Your task to perform on an android device: Clear all items from cart on amazon.com. Add corsair k70 to the cart on amazon.com, then select checkout. Image 0: 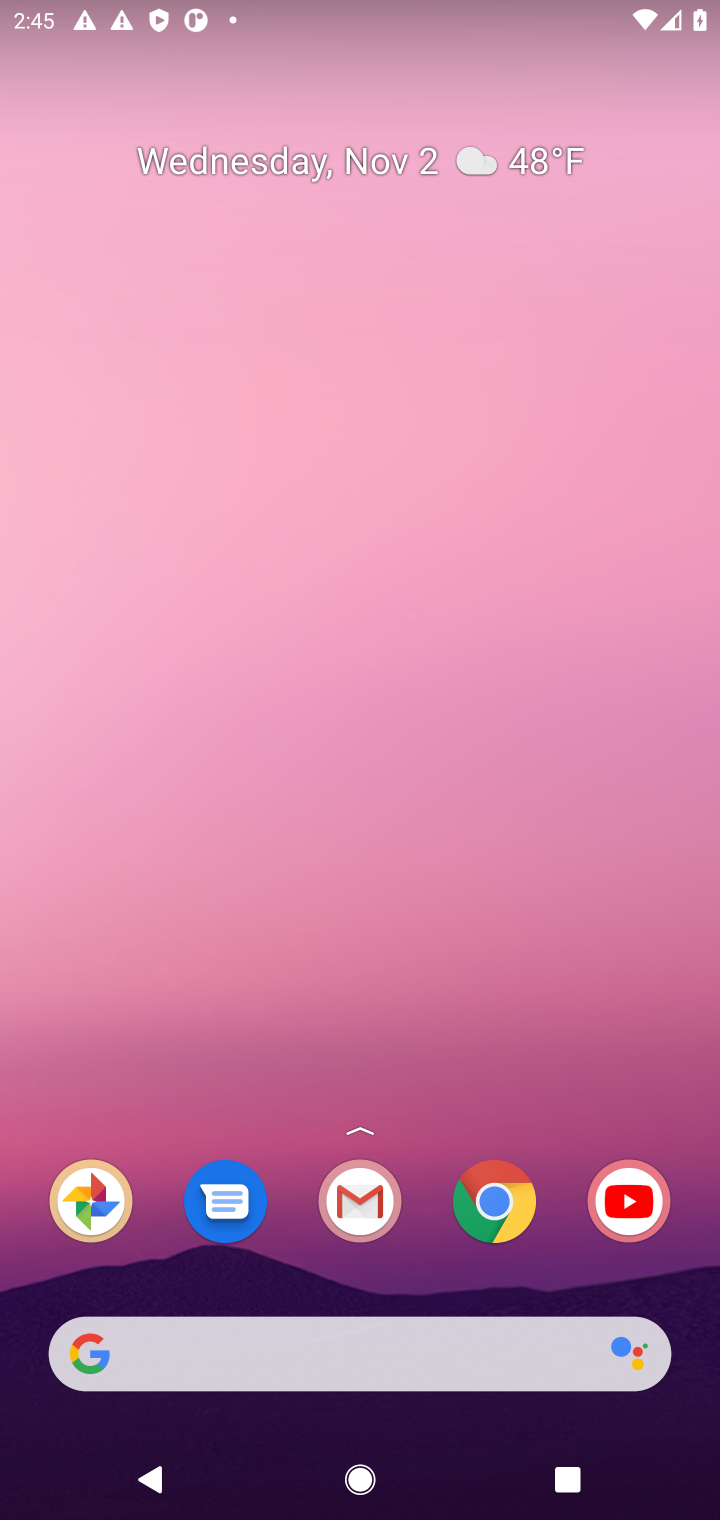
Step 0: click (497, 1222)
Your task to perform on an android device: Clear all items from cart on amazon.com. Add corsair k70 to the cart on amazon.com, then select checkout. Image 1: 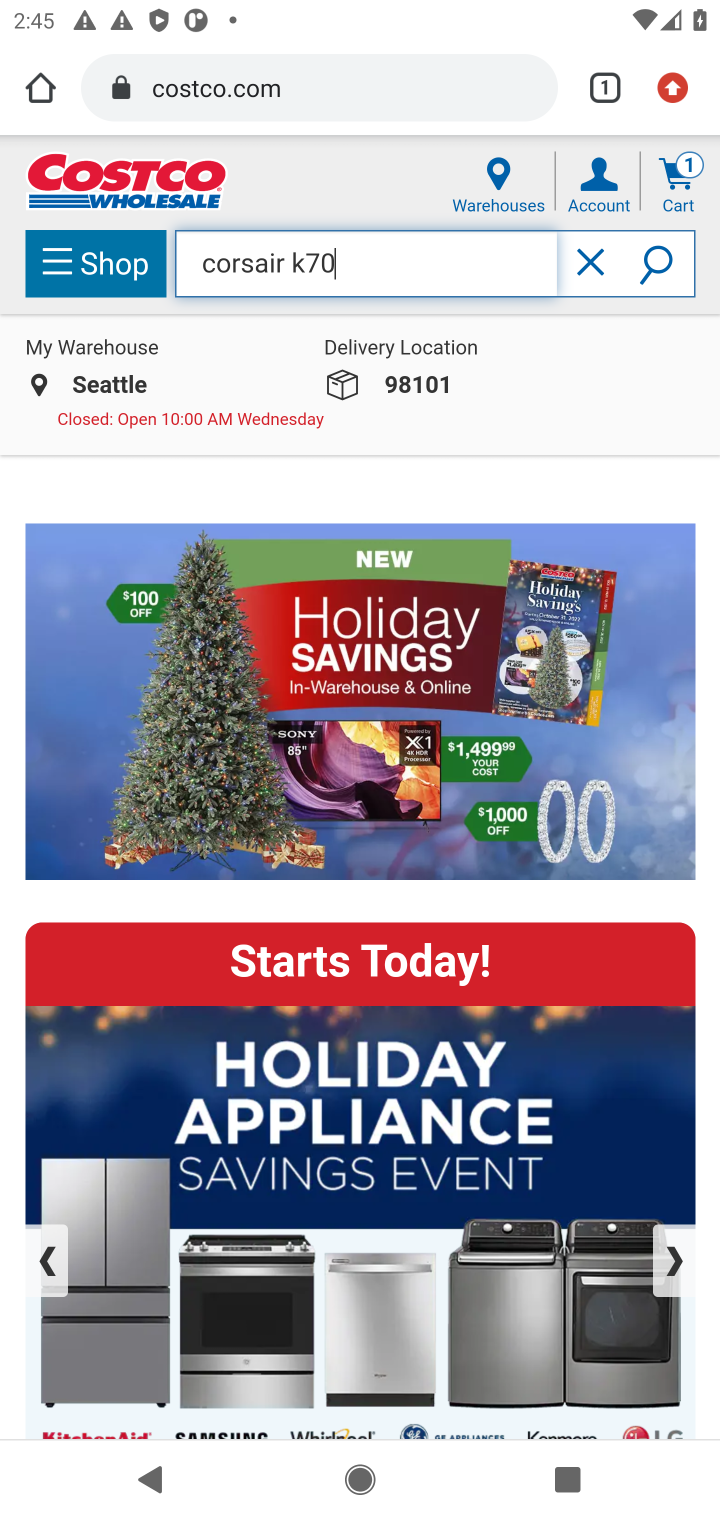
Step 1: click (283, 72)
Your task to perform on an android device: Clear all items from cart on amazon.com. Add corsair k70 to the cart on amazon.com, then select checkout. Image 2: 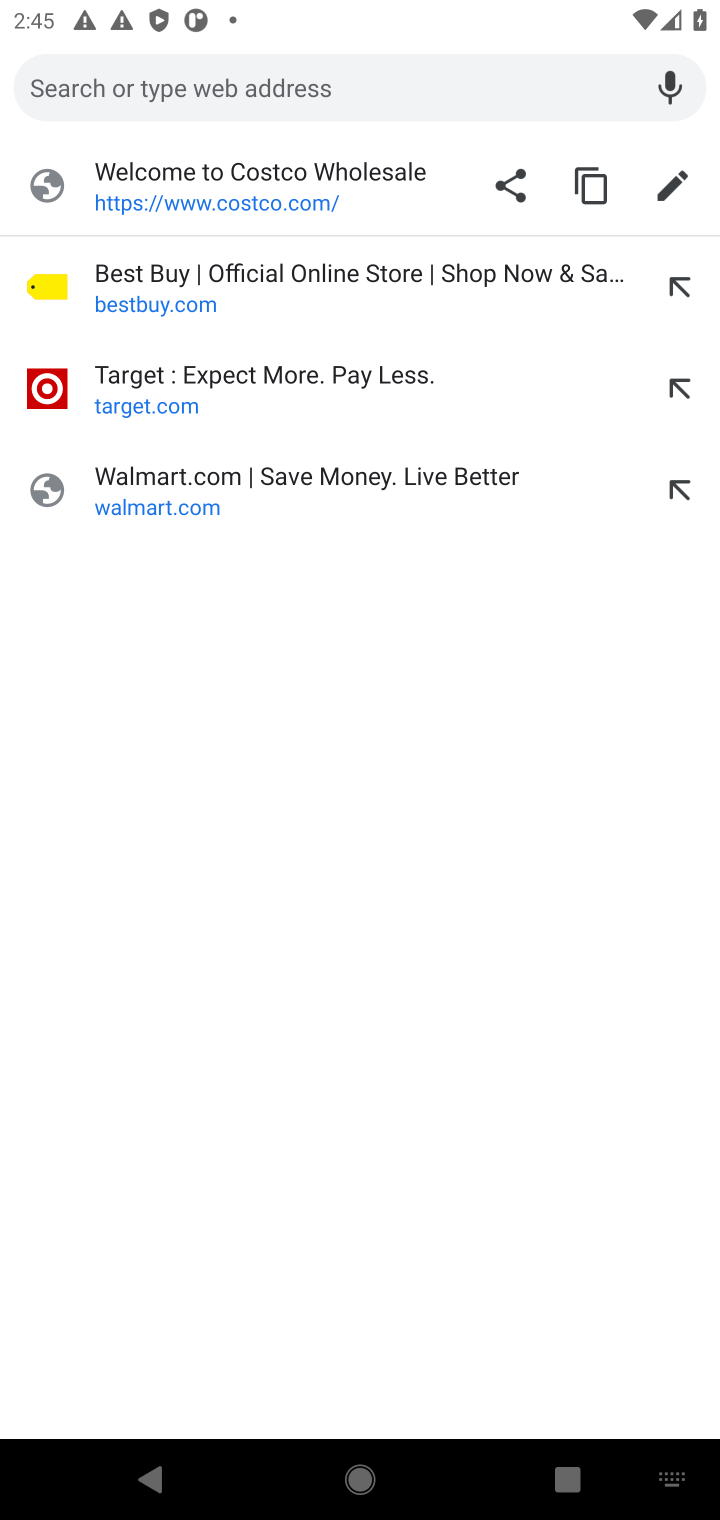
Step 2: type "amazon.com"
Your task to perform on an android device: Clear all items from cart on amazon.com. Add corsair k70 to the cart on amazon.com, then select checkout. Image 3: 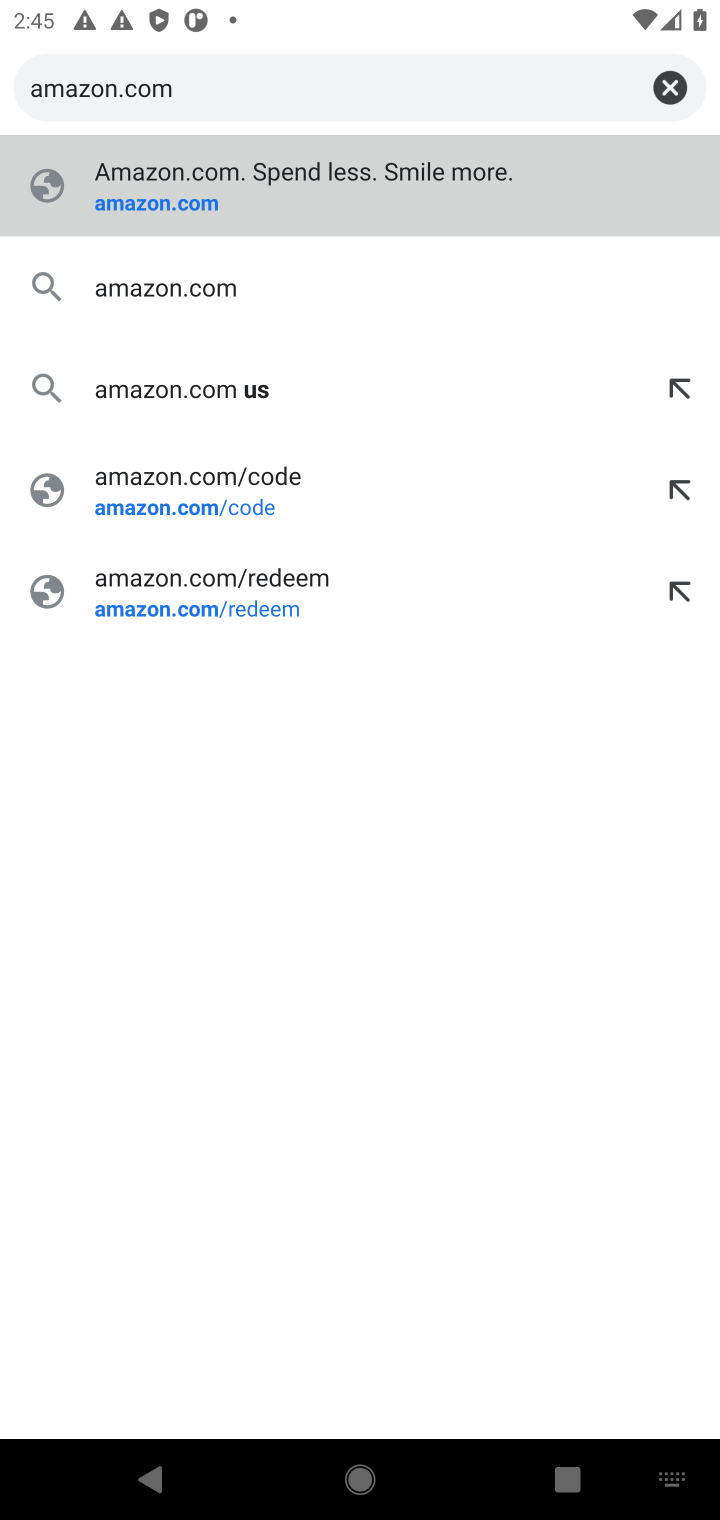
Step 3: press enter
Your task to perform on an android device: Clear all items from cart on amazon.com. Add corsair k70 to the cart on amazon.com, then select checkout. Image 4: 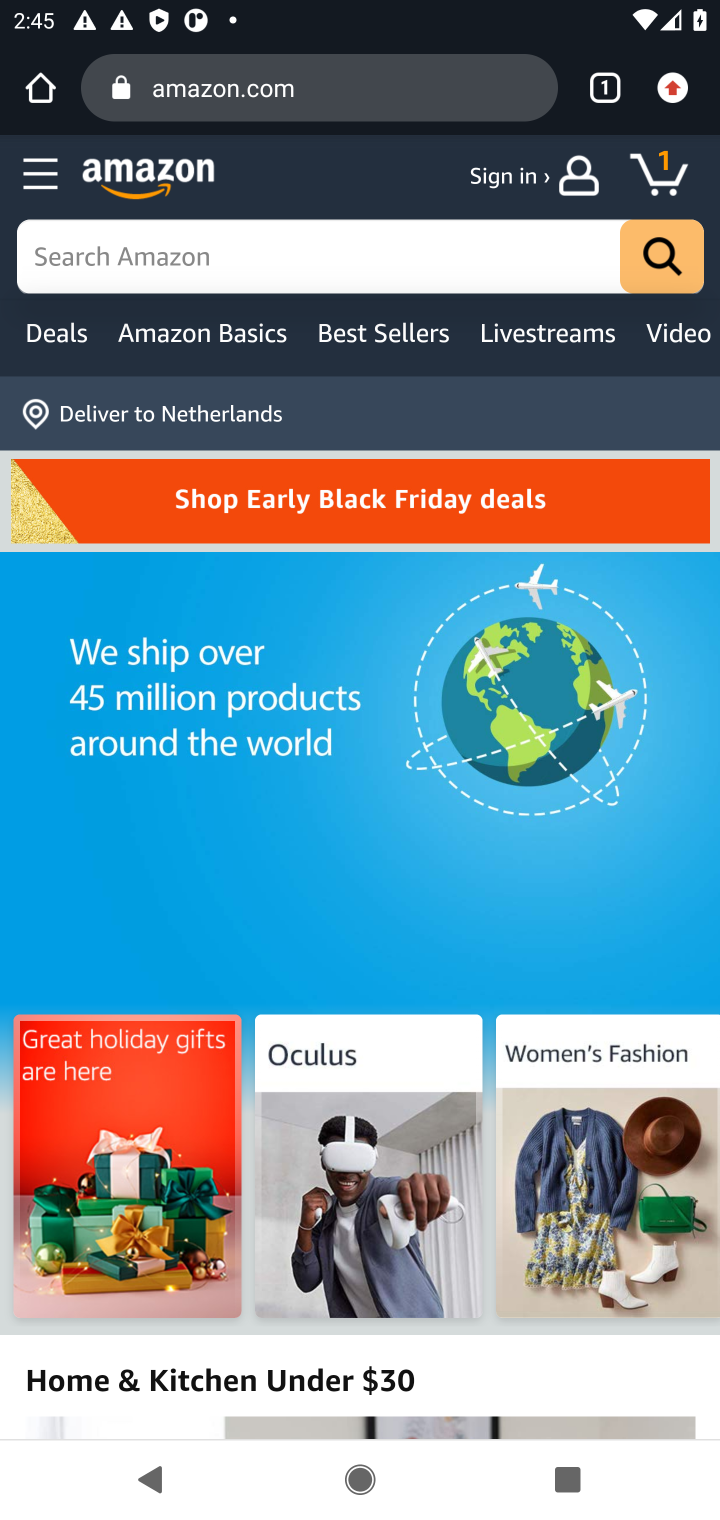
Step 4: click (651, 169)
Your task to perform on an android device: Clear all items from cart on amazon.com. Add corsair k70 to the cart on amazon.com, then select checkout. Image 5: 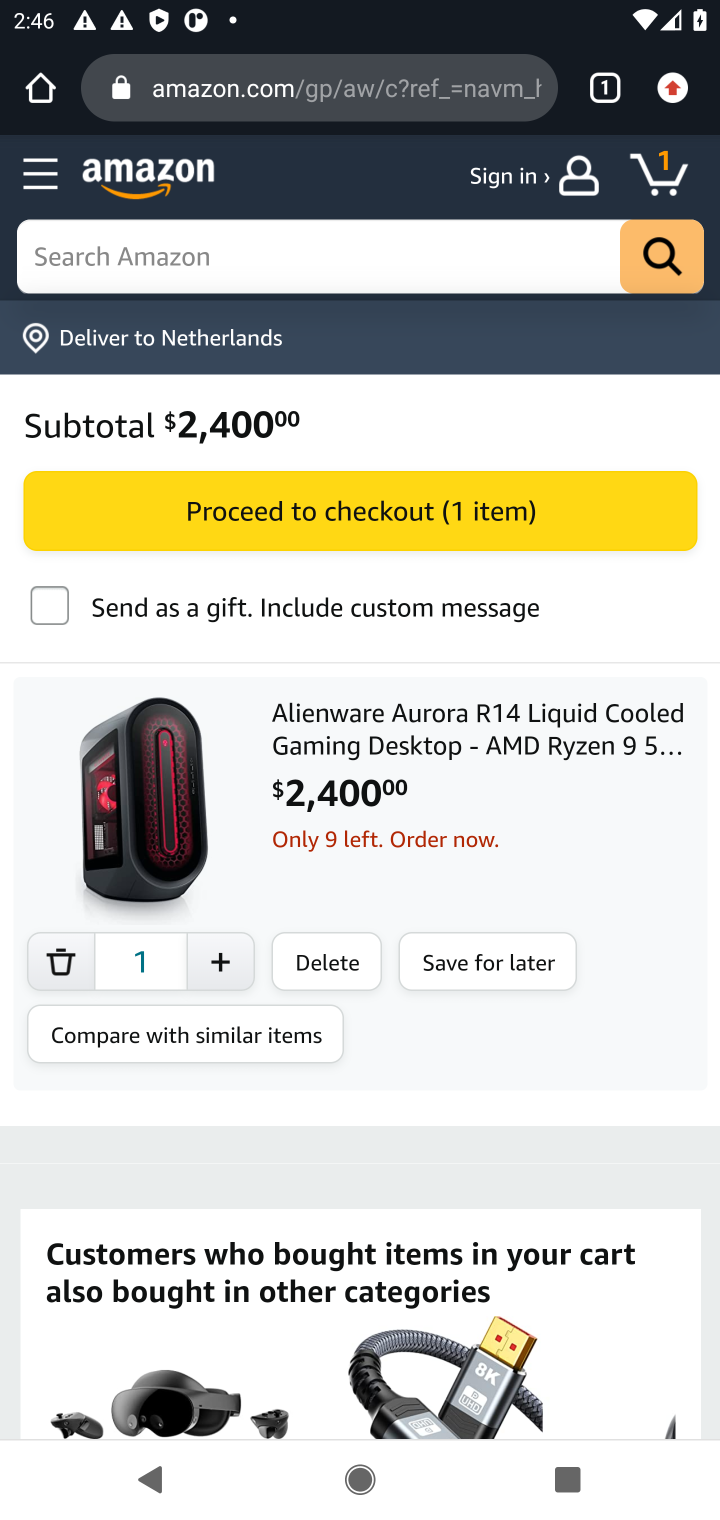
Step 5: click (330, 961)
Your task to perform on an android device: Clear all items from cart on amazon.com. Add corsair k70 to the cart on amazon.com, then select checkout. Image 6: 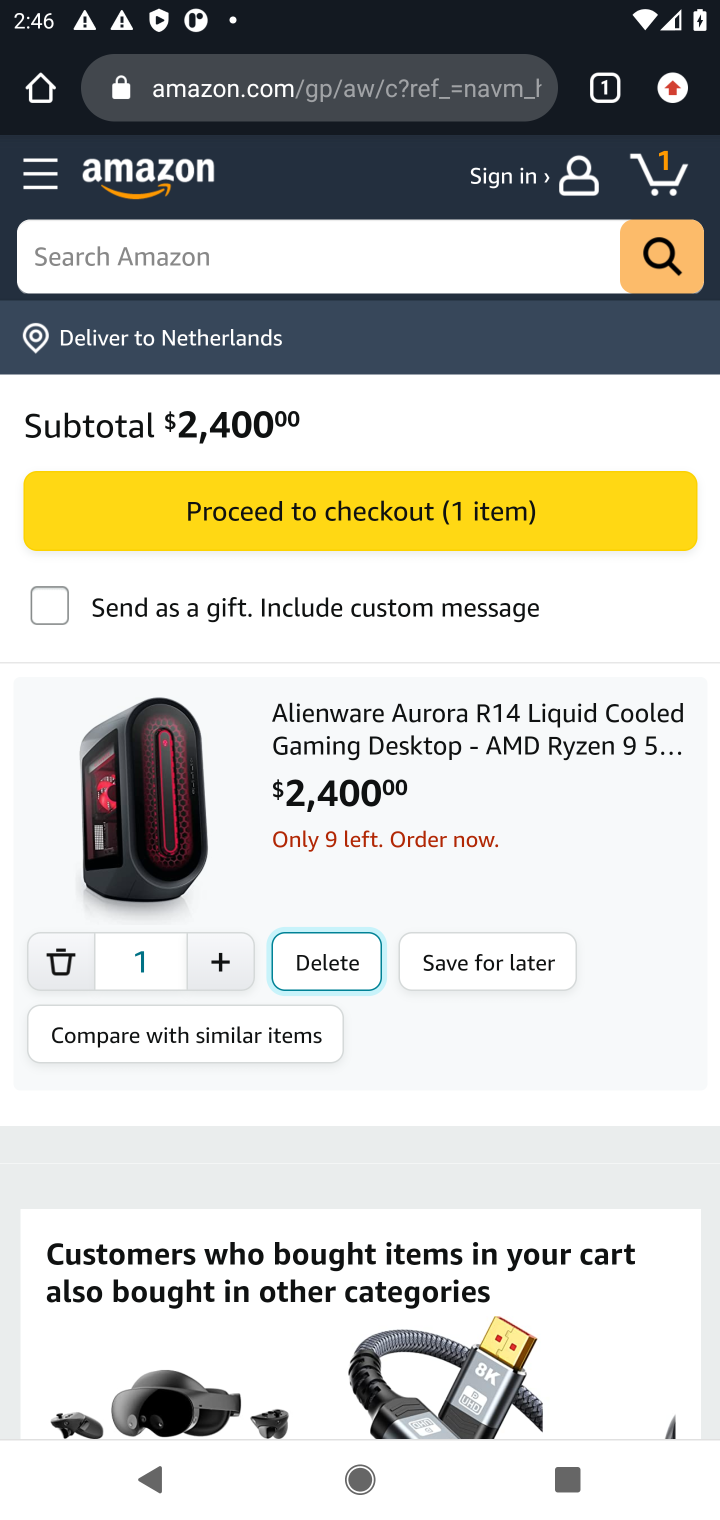
Step 6: click (330, 961)
Your task to perform on an android device: Clear all items from cart on amazon.com. Add corsair k70 to the cart on amazon.com, then select checkout. Image 7: 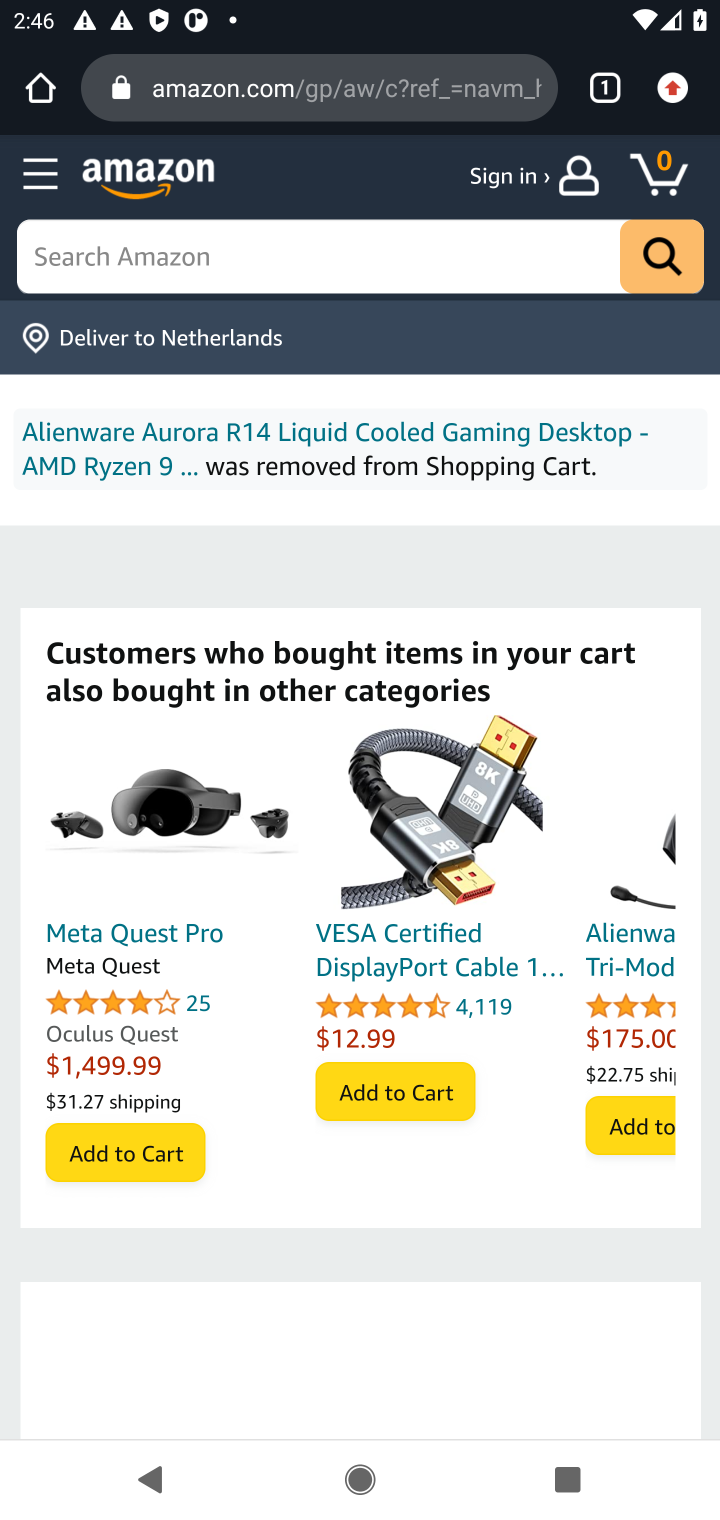
Step 7: click (373, 264)
Your task to perform on an android device: Clear all items from cart on amazon.com. Add corsair k70 to the cart on amazon.com, then select checkout. Image 8: 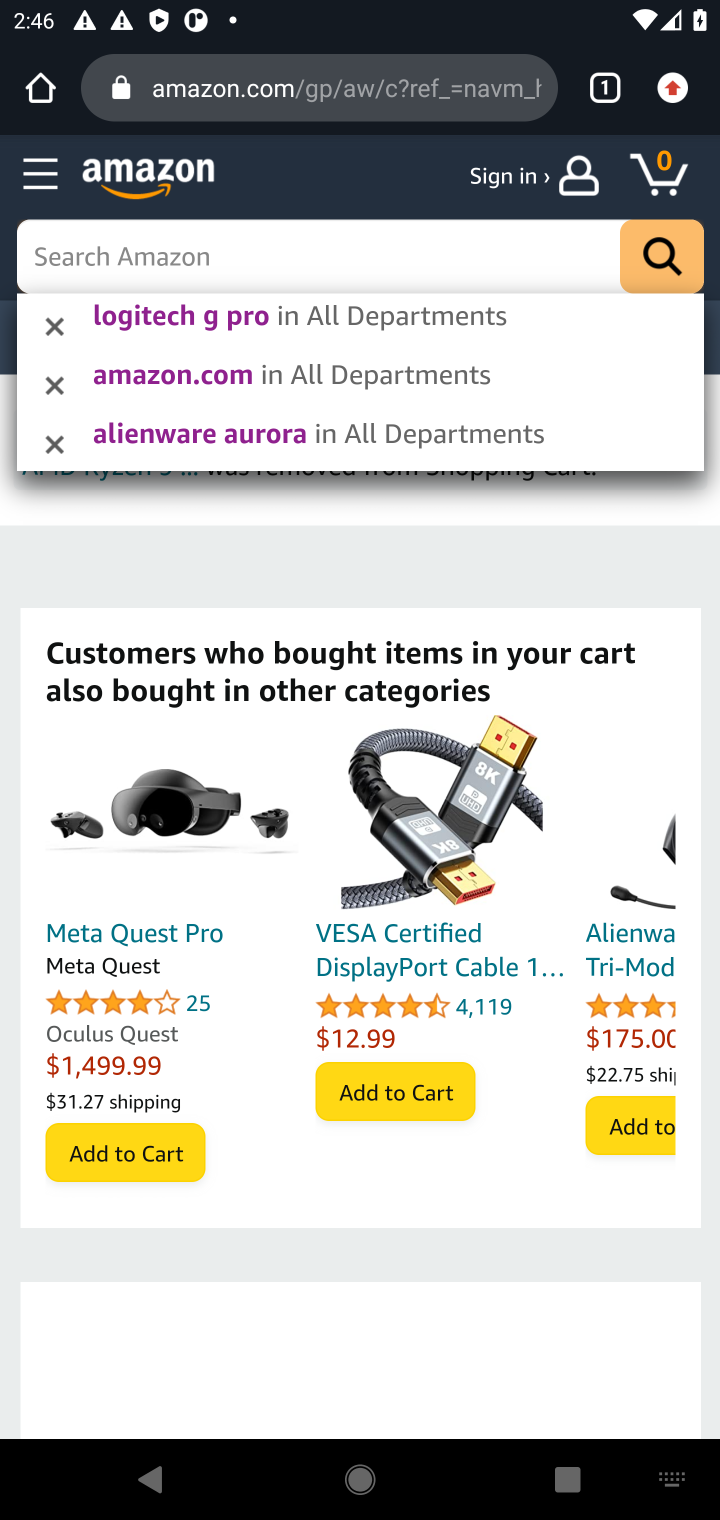
Step 8: type "corsair k70"
Your task to perform on an android device: Clear all items from cart on amazon.com. Add corsair k70 to the cart on amazon.com, then select checkout. Image 9: 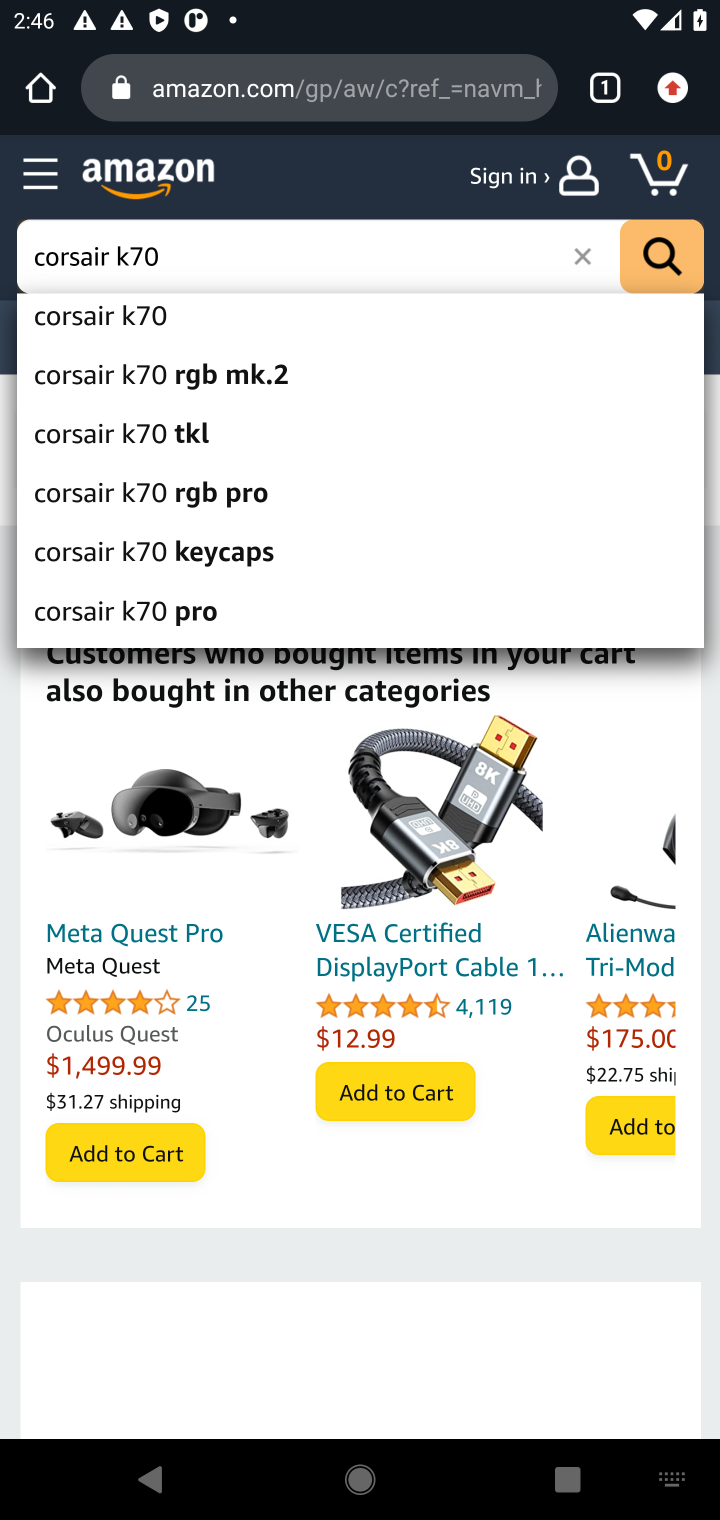
Step 9: click (125, 320)
Your task to perform on an android device: Clear all items from cart on amazon.com. Add corsair k70 to the cart on amazon.com, then select checkout. Image 10: 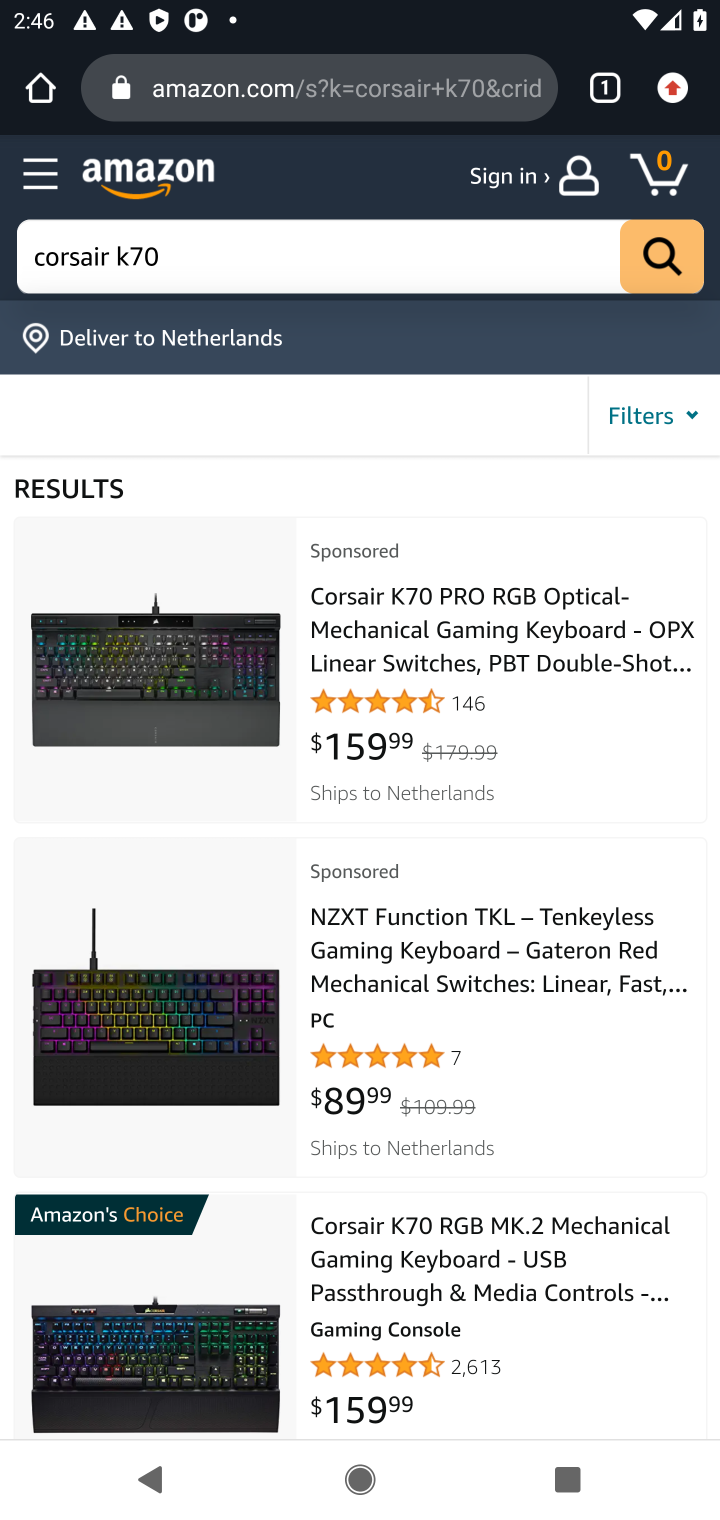
Step 10: drag from (208, 1084) to (196, 706)
Your task to perform on an android device: Clear all items from cart on amazon.com. Add corsair k70 to the cart on amazon.com, then select checkout. Image 11: 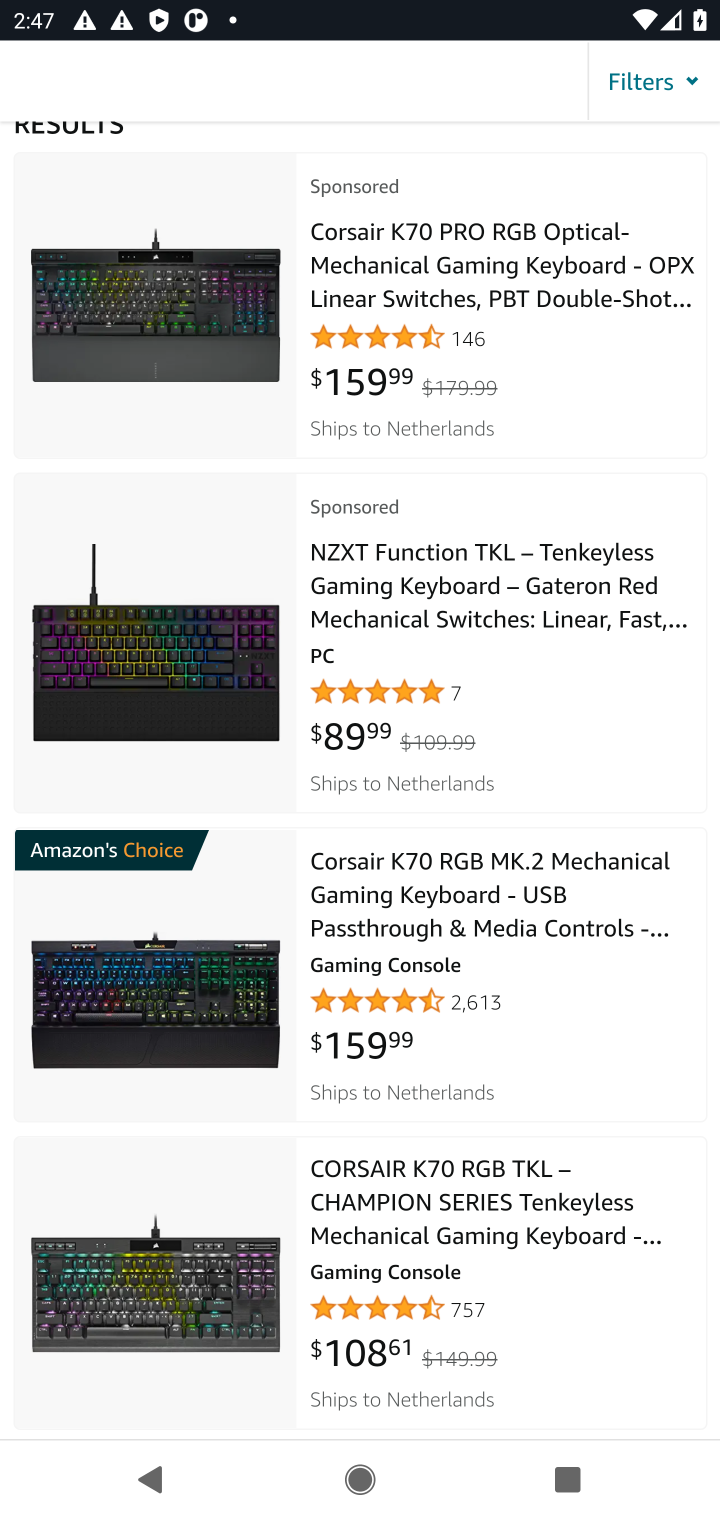
Step 11: click (150, 968)
Your task to perform on an android device: Clear all items from cart on amazon.com. Add corsair k70 to the cart on amazon.com, then select checkout. Image 12: 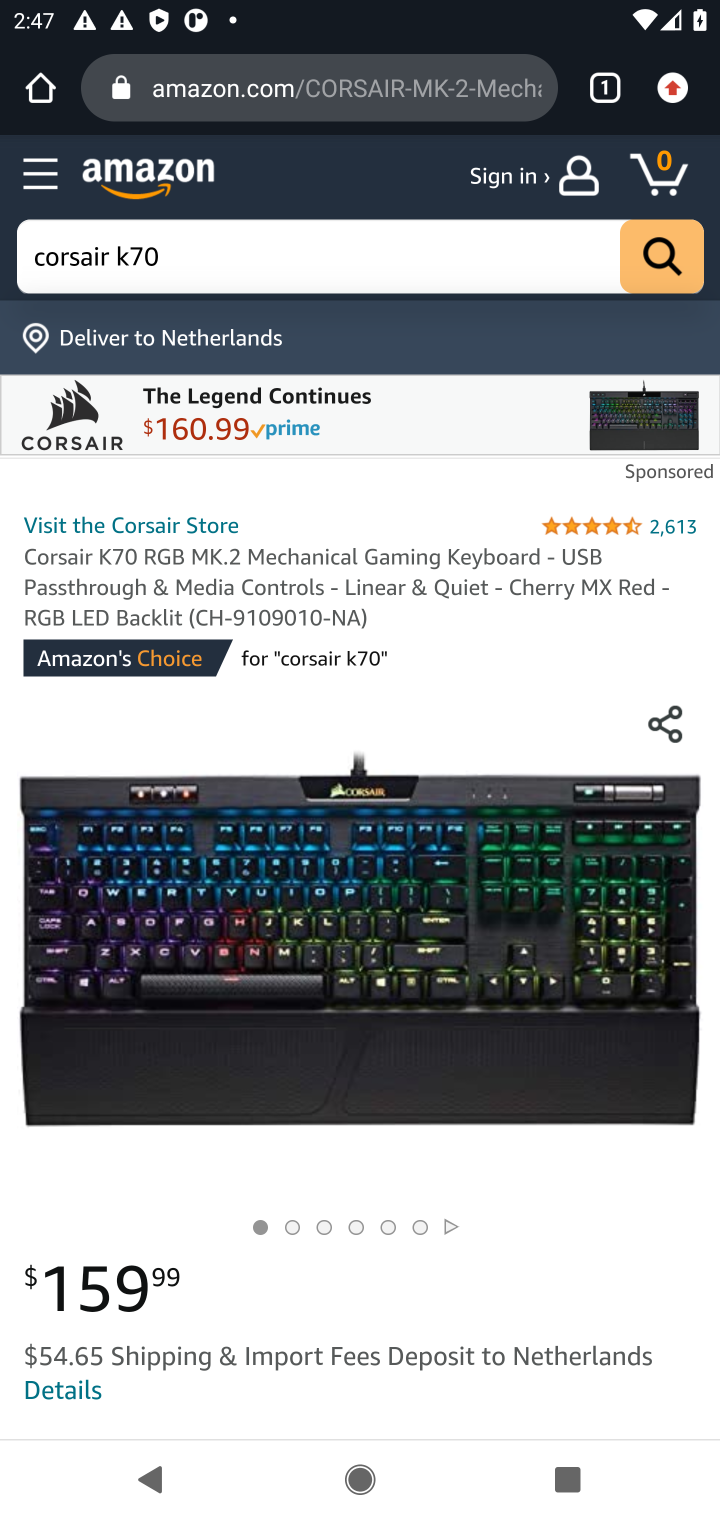
Step 12: drag from (372, 1061) to (376, 630)
Your task to perform on an android device: Clear all items from cart on amazon.com. Add corsair k70 to the cart on amazon.com, then select checkout. Image 13: 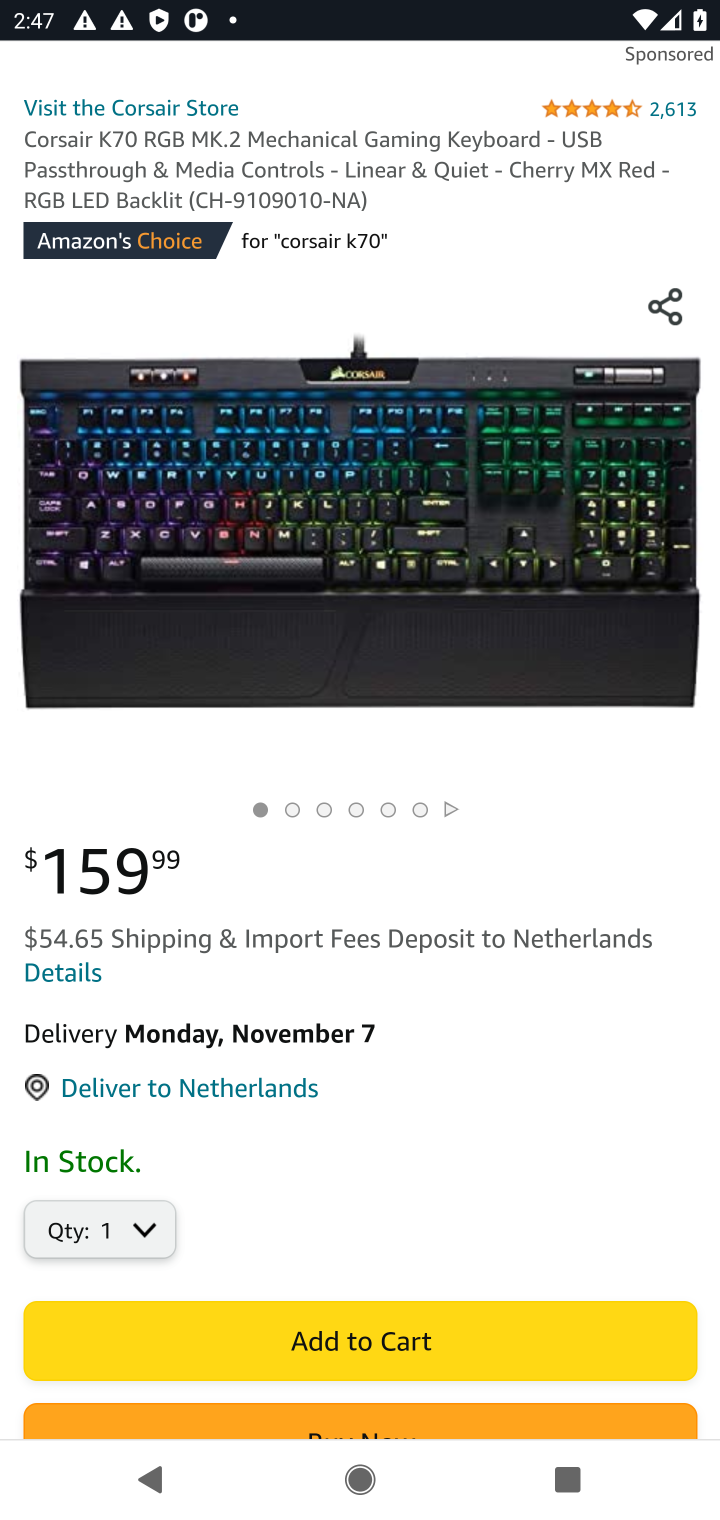
Step 13: click (393, 1336)
Your task to perform on an android device: Clear all items from cart on amazon.com. Add corsair k70 to the cart on amazon.com, then select checkout. Image 14: 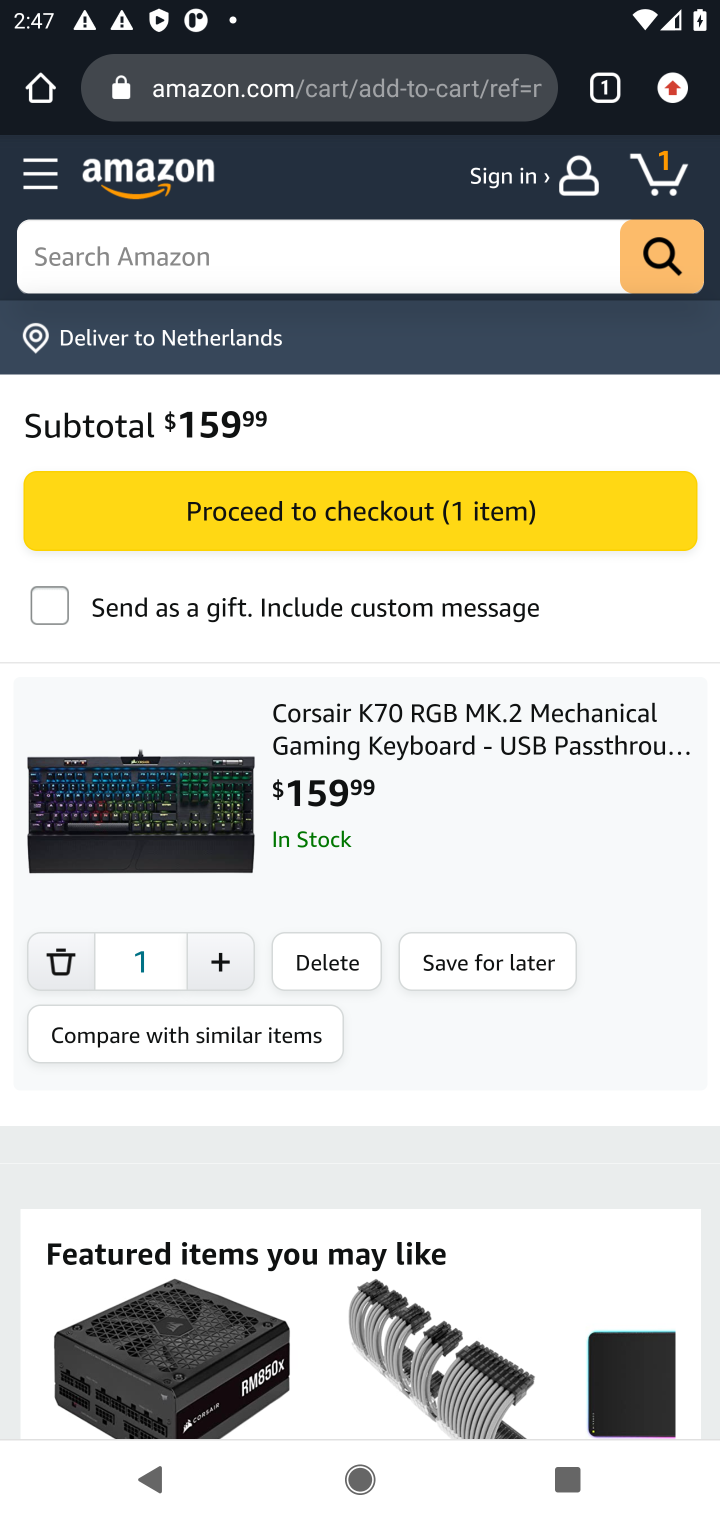
Step 14: click (212, 496)
Your task to perform on an android device: Clear all items from cart on amazon.com. Add corsair k70 to the cart on amazon.com, then select checkout. Image 15: 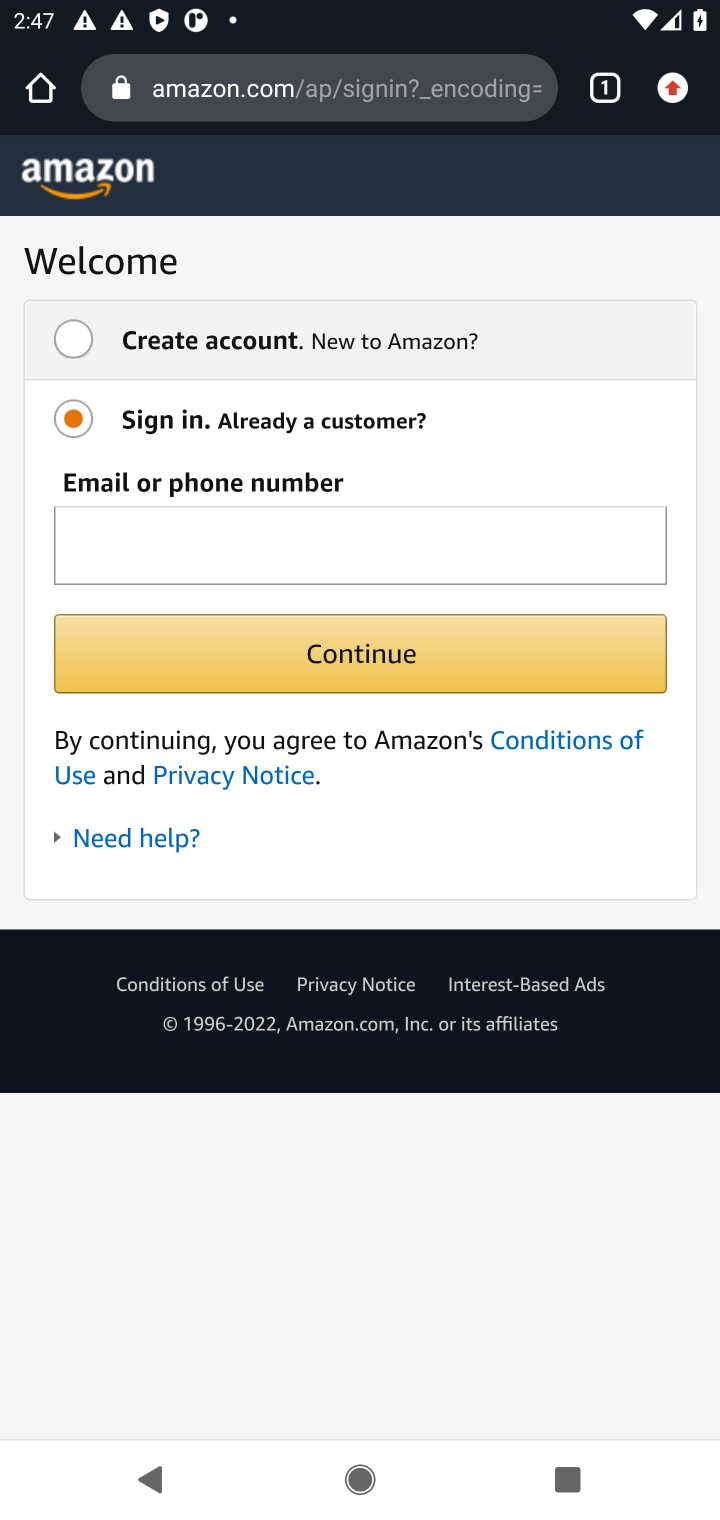
Step 15: task complete